Your task to perform on an android device: all mails in gmail Image 0: 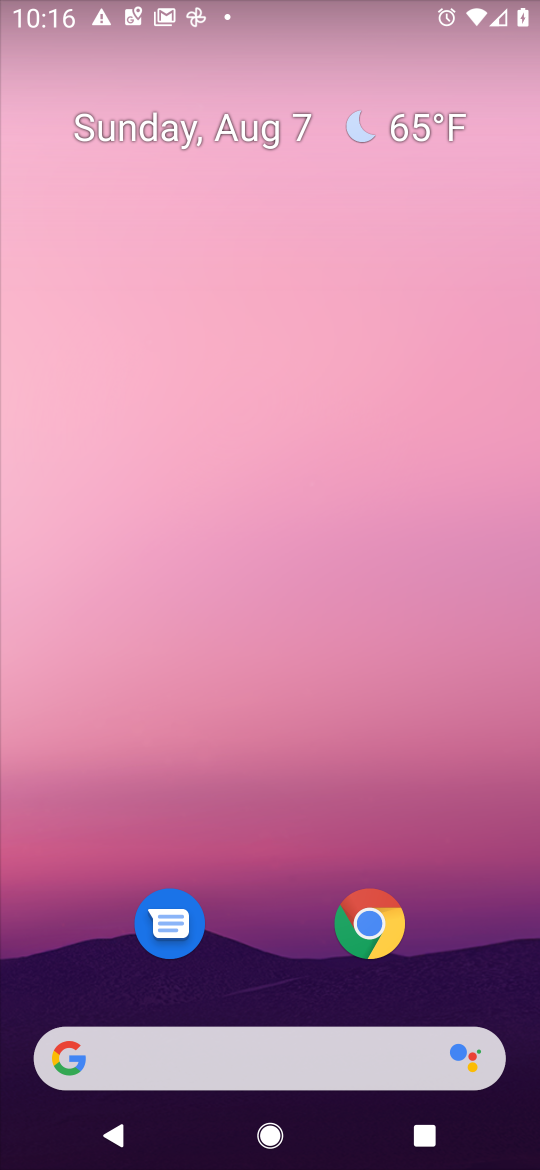
Step 0: drag from (454, 722) to (243, 102)
Your task to perform on an android device: all mails in gmail Image 1: 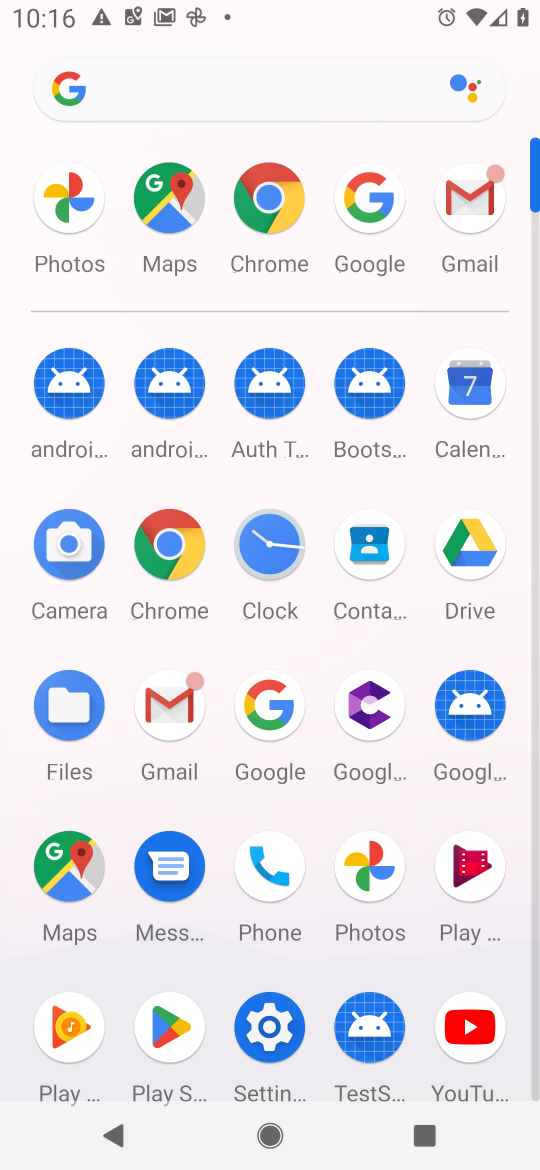
Step 1: click (454, 210)
Your task to perform on an android device: all mails in gmail Image 2: 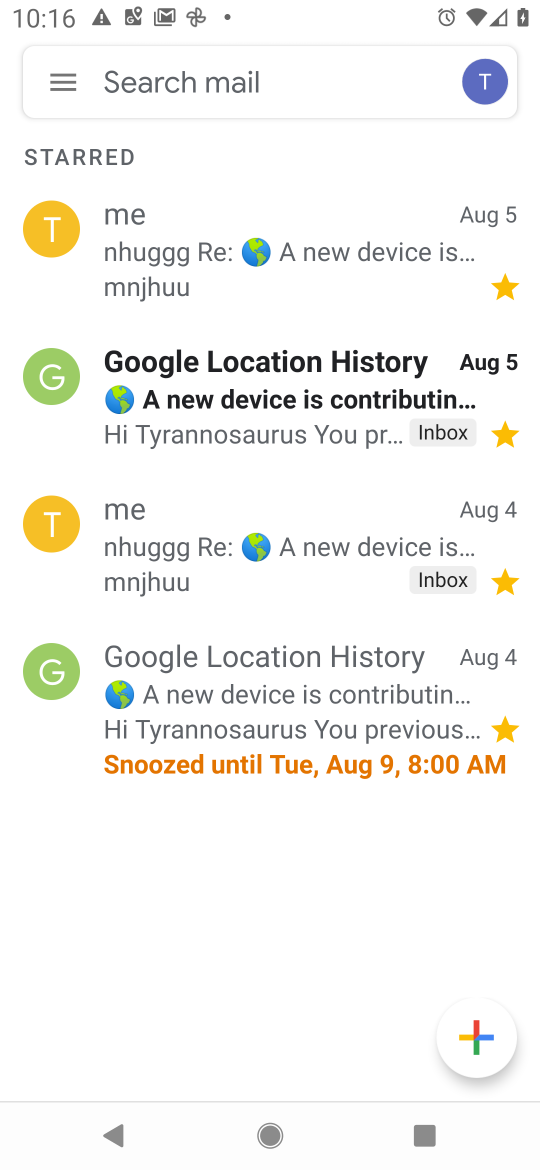
Step 2: click (48, 86)
Your task to perform on an android device: all mails in gmail Image 3: 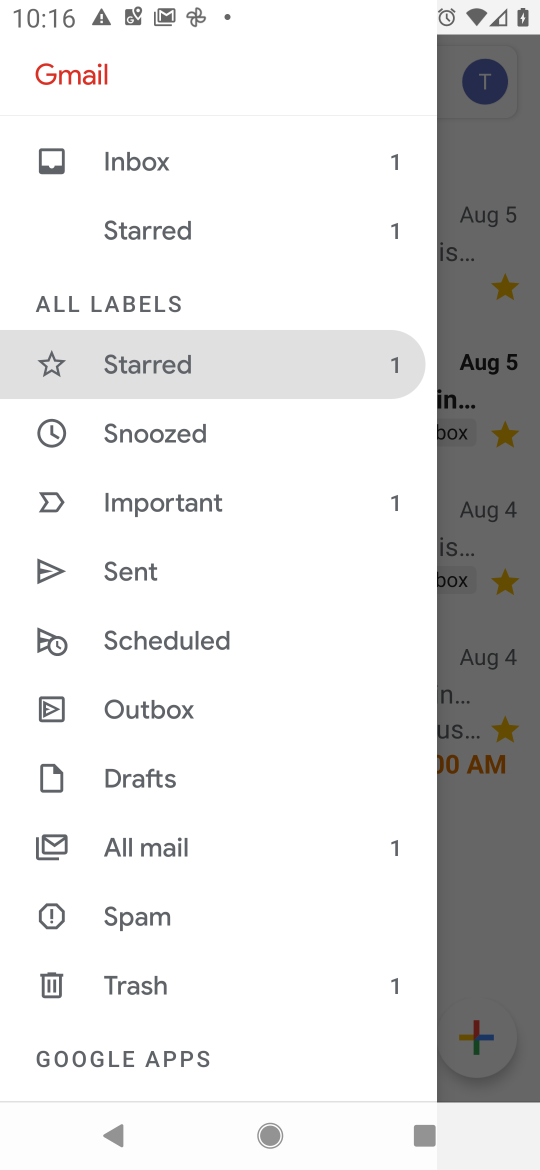
Step 3: click (152, 850)
Your task to perform on an android device: all mails in gmail Image 4: 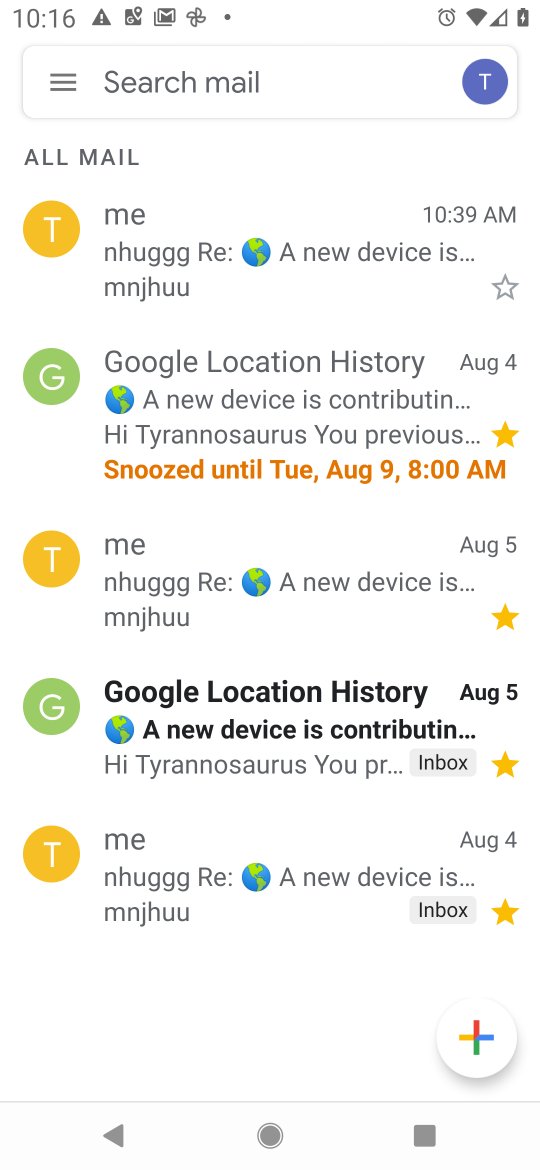
Step 4: task complete